Your task to perform on an android device: open chrome privacy settings Image 0: 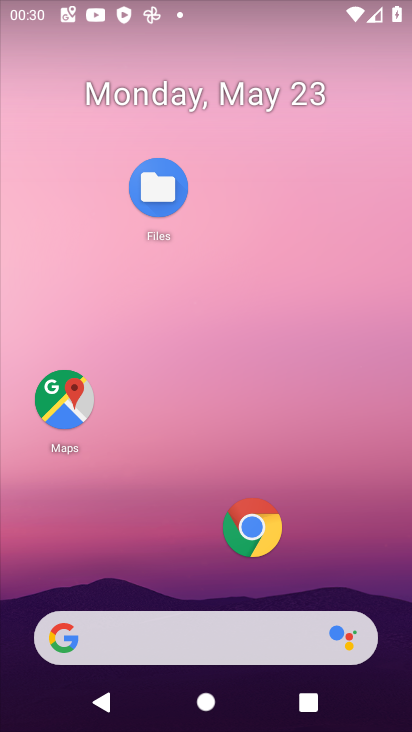
Step 0: click (248, 529)
Your task to perform on an android device: open chrome privacy settings Image 1: 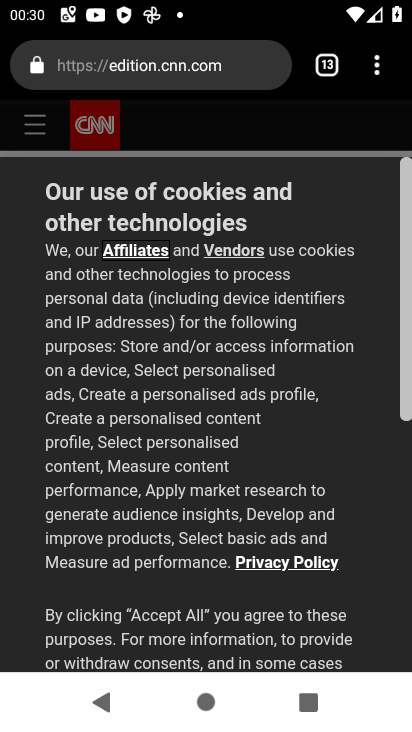
Step 1: click (376, 68)
Your task to perform on an android device: open chrome privacy settings Image 2: 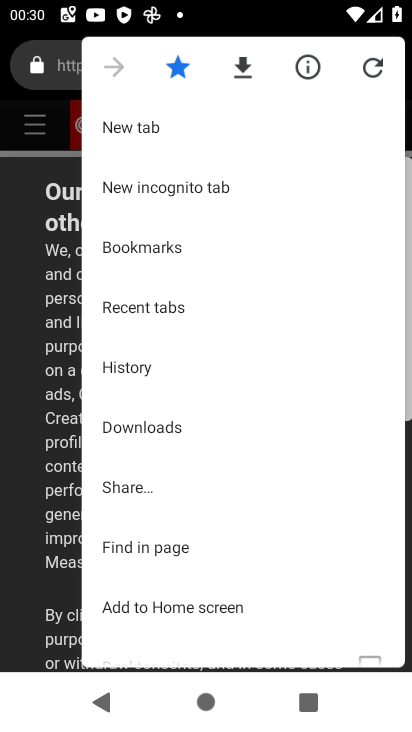
Step 2: drag from (229, 509) to (201, 164)
Your task to perform on an android device: open chrome privacy settings Image 3: 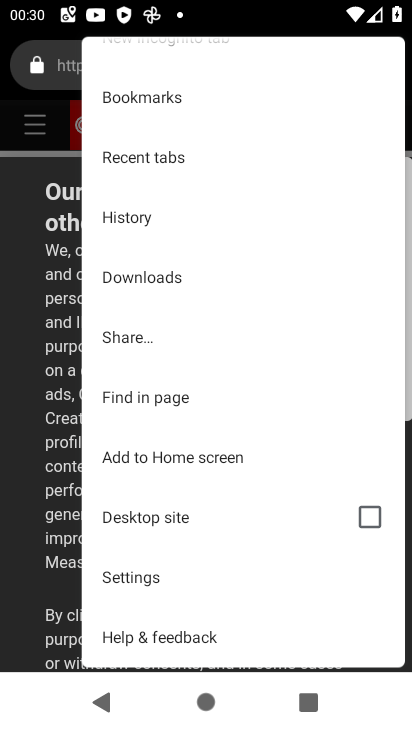
Step 3: click (129, 570)
Your task to perform on an android device: open chrome privacy settings Image 4: 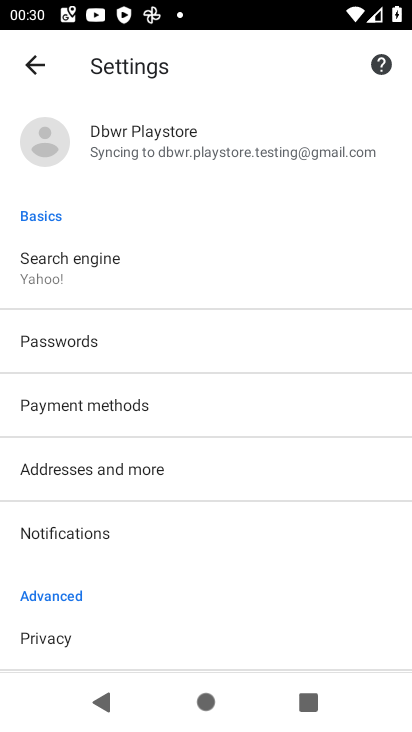
Step 4: click (45, 632)
Your task to perform on an android device: open chrome privacy settings Image 5: 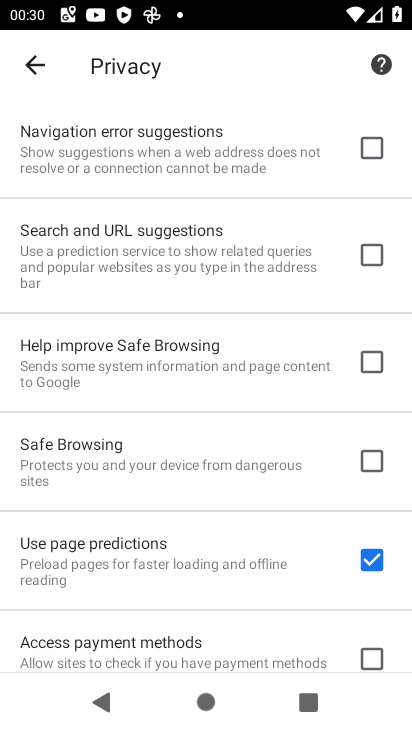
Step 5: task complete